Your task to perform on an android device: Open ESPN.com Image 0: 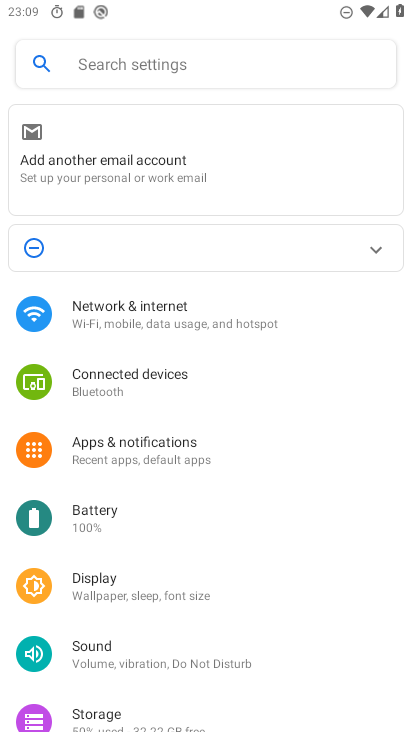
Step 0: press home button
Your task to perform on an android device: Open ESPN.com Image 1: 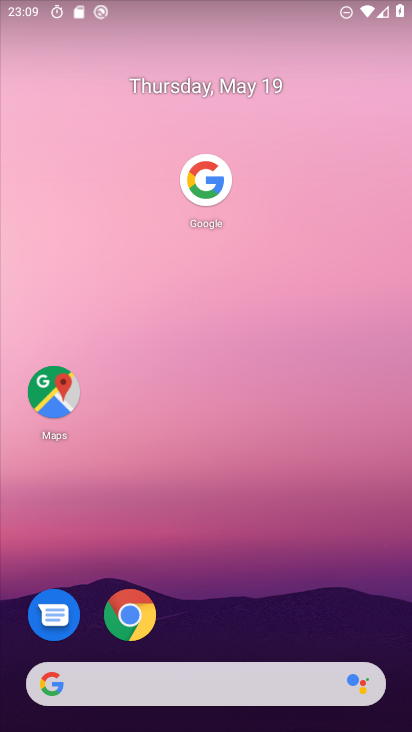
Step 1: click (207, 186)
Your task to perform on an android device: Open ESPN.com Image 2: 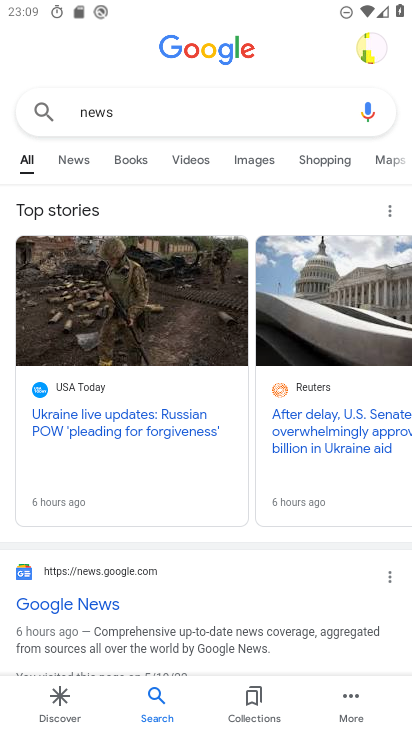
Step 2: click (154, 103)
Your task to perform on an android device: Open ESPN.com Image 3: 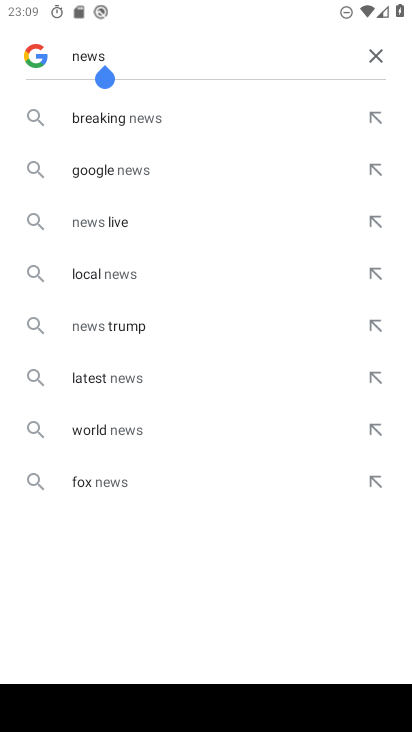
Step 3: click (379, 45)
Your task to perform on an android device: Open ESPN.com Image 4: 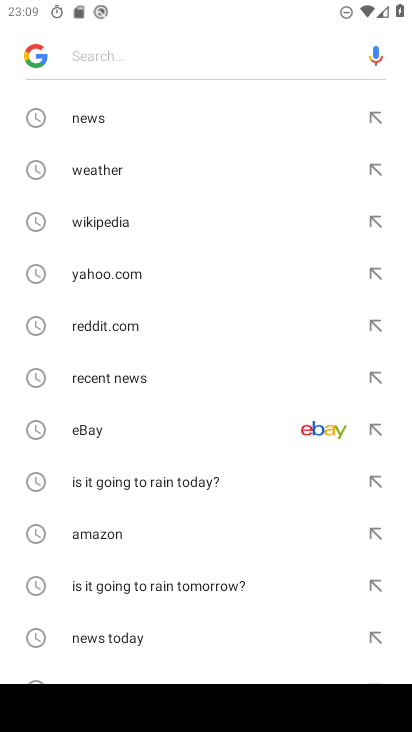
Step 4: type "espn.com"
Your task to perform on an android device: Open ESPN.com Image 5: 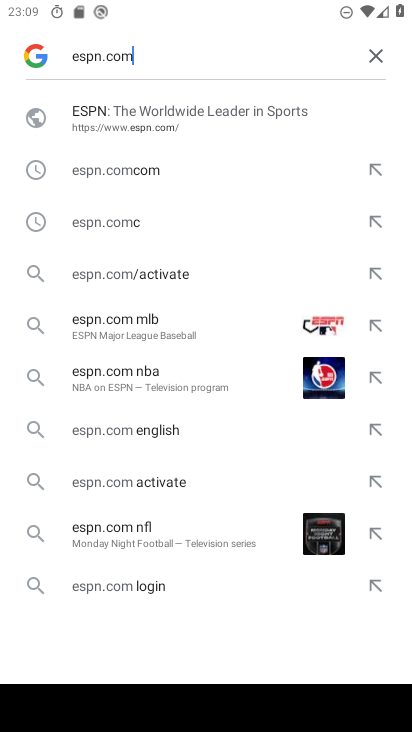
Step 5: click (168, 131)
Your task to perform on an android device: Open ESPN.com Image 6: 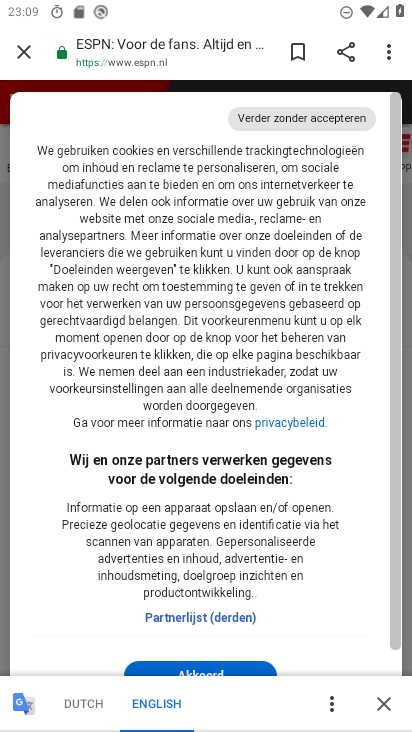
Step 6: task complete